Your task to perform on an android device: open wifi settings Image 0: 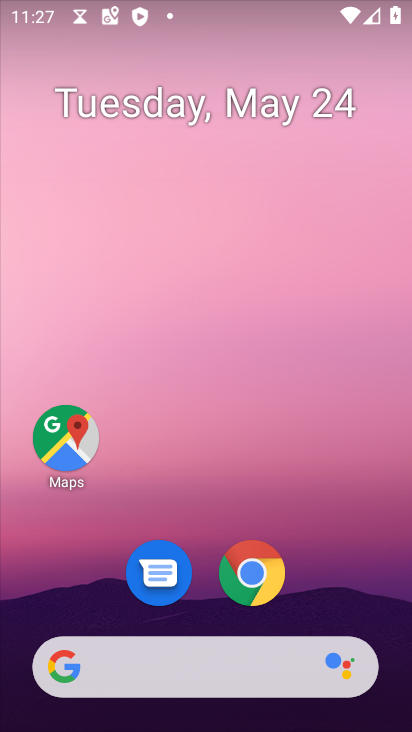
Step 0: drag from (51, 613) to (233, 146)
Your task to perform on an android device: open wifi settings Image 1: 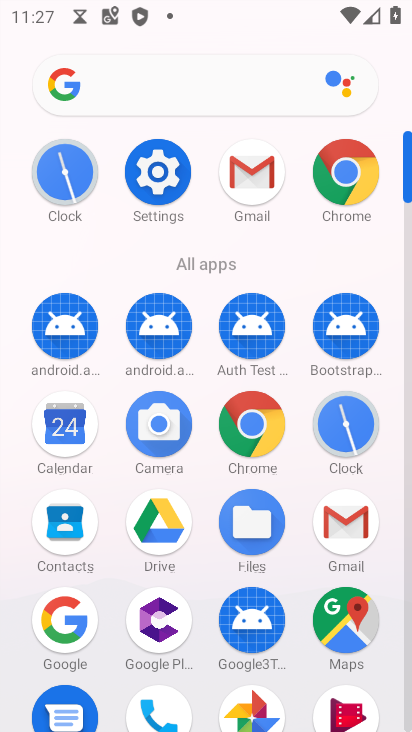
Step 1: drag from (169, 651) to (245, 432)
Your task to perform on an android device: open wifi settings Image 2: 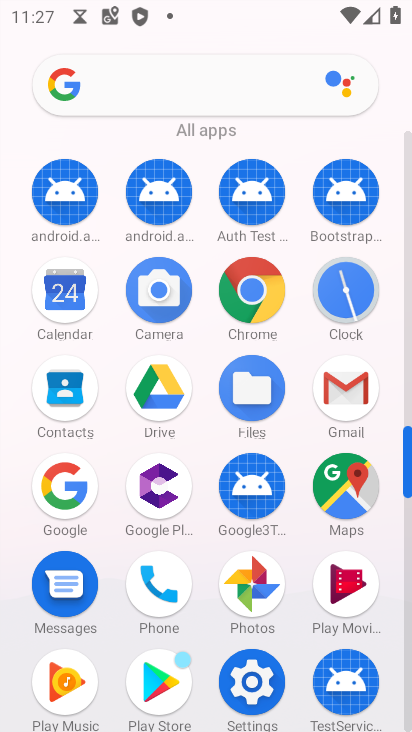
Step 2: click (235, 675)
Your task to perform on an android device: open wifi settings Image 3: 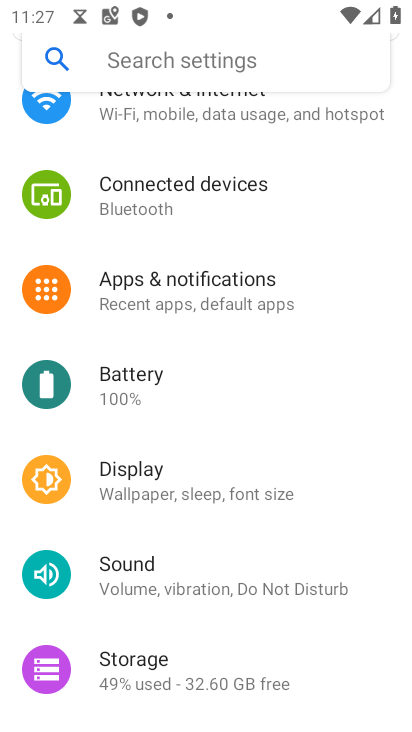
Step 3: drag from (260, 198) to (277, 670)
Your task to perform on an android device: open wifi settings Image 4: 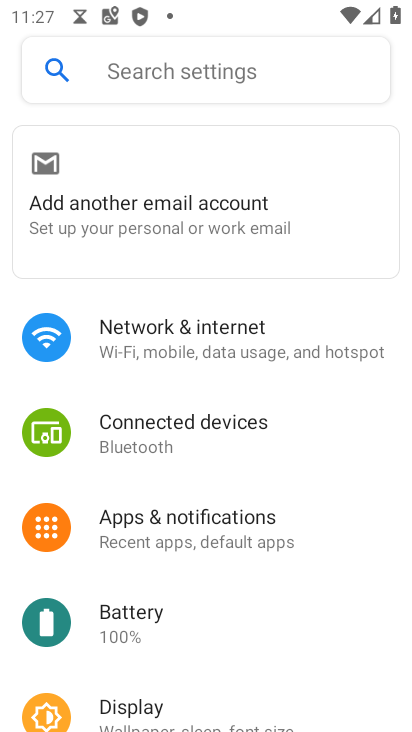
Step 4: click (230, 362)
Your task to perform on an android device: open wifi settings Image 5: 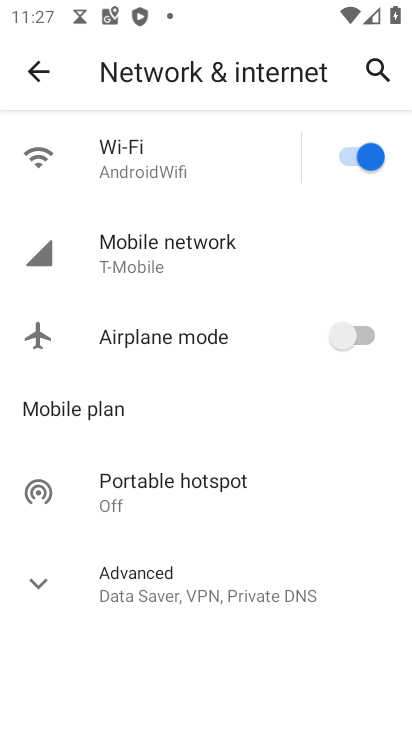
Step 5: click (132, 147)
Your task to perform on an android device: open wifi settings Image 6: 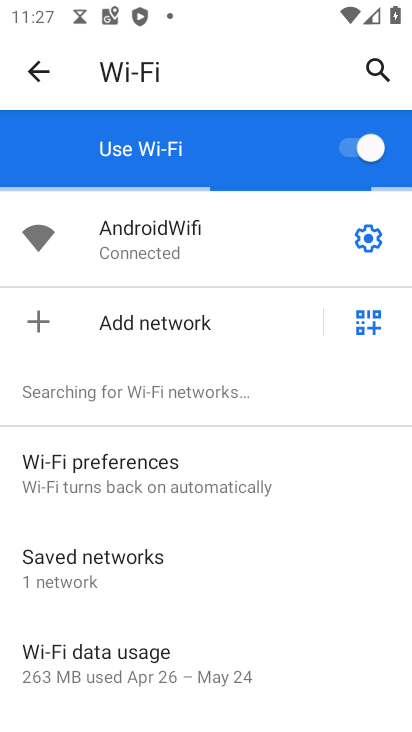
Step 6: task complete